Your task to perform on an android device: Check the weather Image 0: 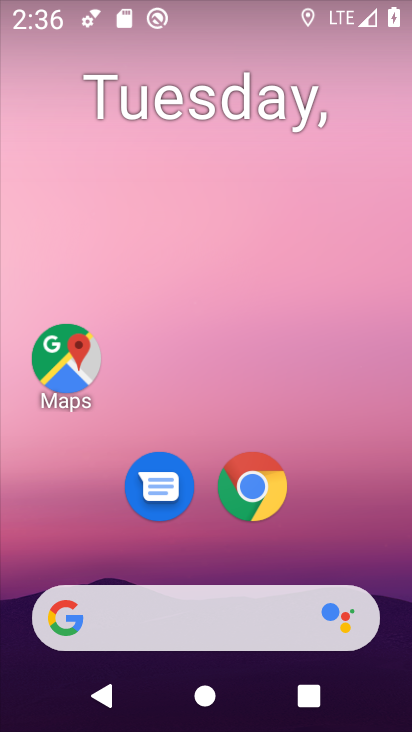
Step 0: press home button
Your task to perform on an android device: Check the weather Image 1: 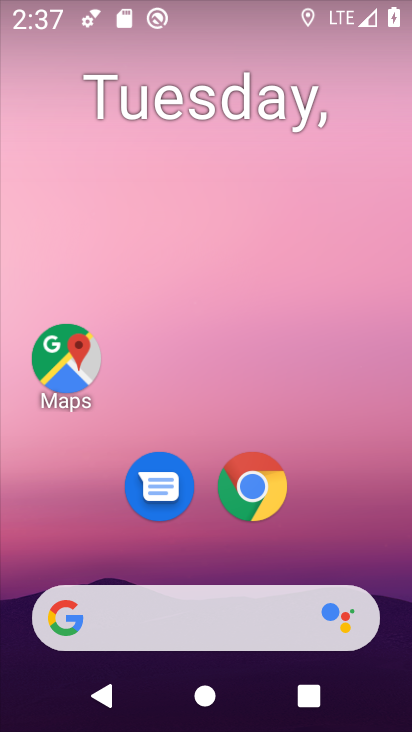
Step 1: click (218, 605)
Your task to perform on an android device: Check the weather Image 2: 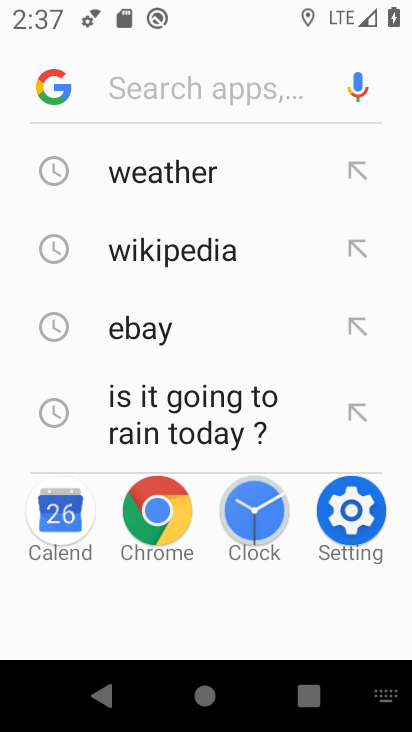
Step 2: click (182, 183)
Your task to perform on an android device: Check the weather Image 3: 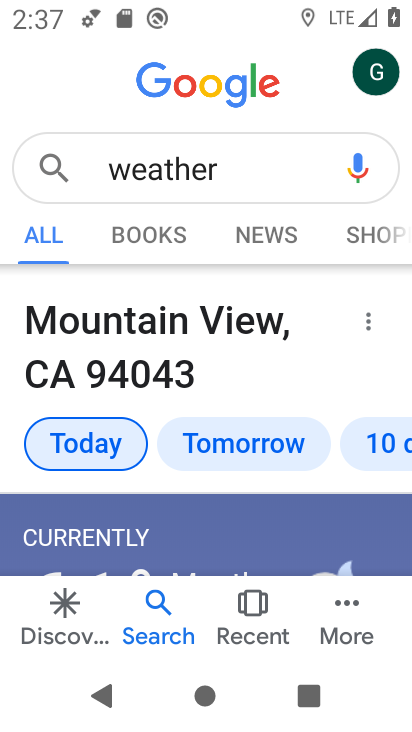
Step 3: task complete